Your task to perform on an android device: Open network settings Image 0: 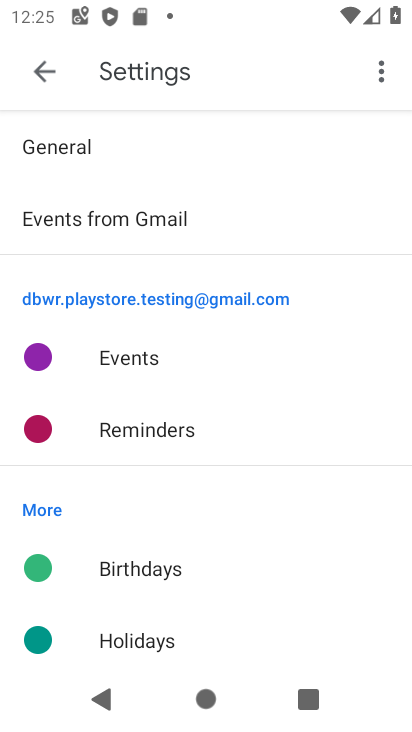
Step 0: press home button
Your task to perform on an android device: Open network settings Image 1: 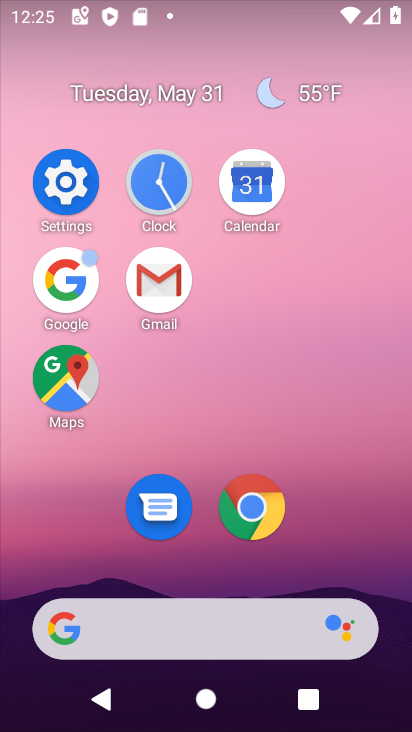
Step 1: click (91, 179)
Your task to perform on an android device: Open network settings Image 2: 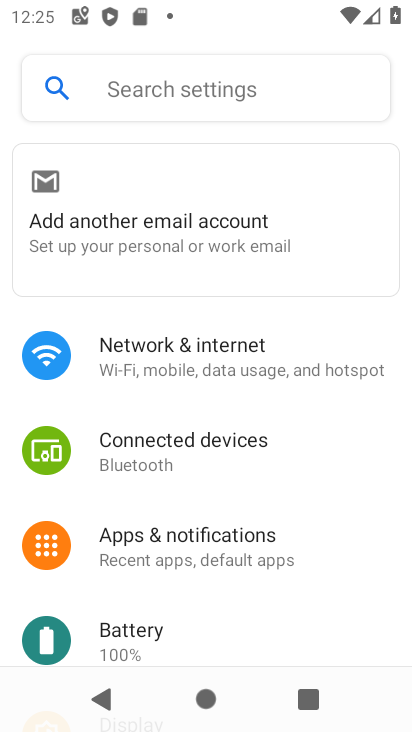
Step 2: click (242, 353)
Your task to perform on an android device: Open network settings Image 3: 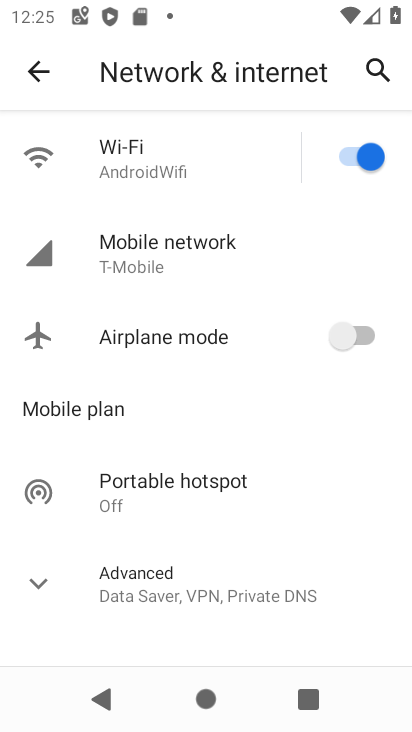
Step 3: task complete